Your task to perform on an android device: Show me recent news Image 0: 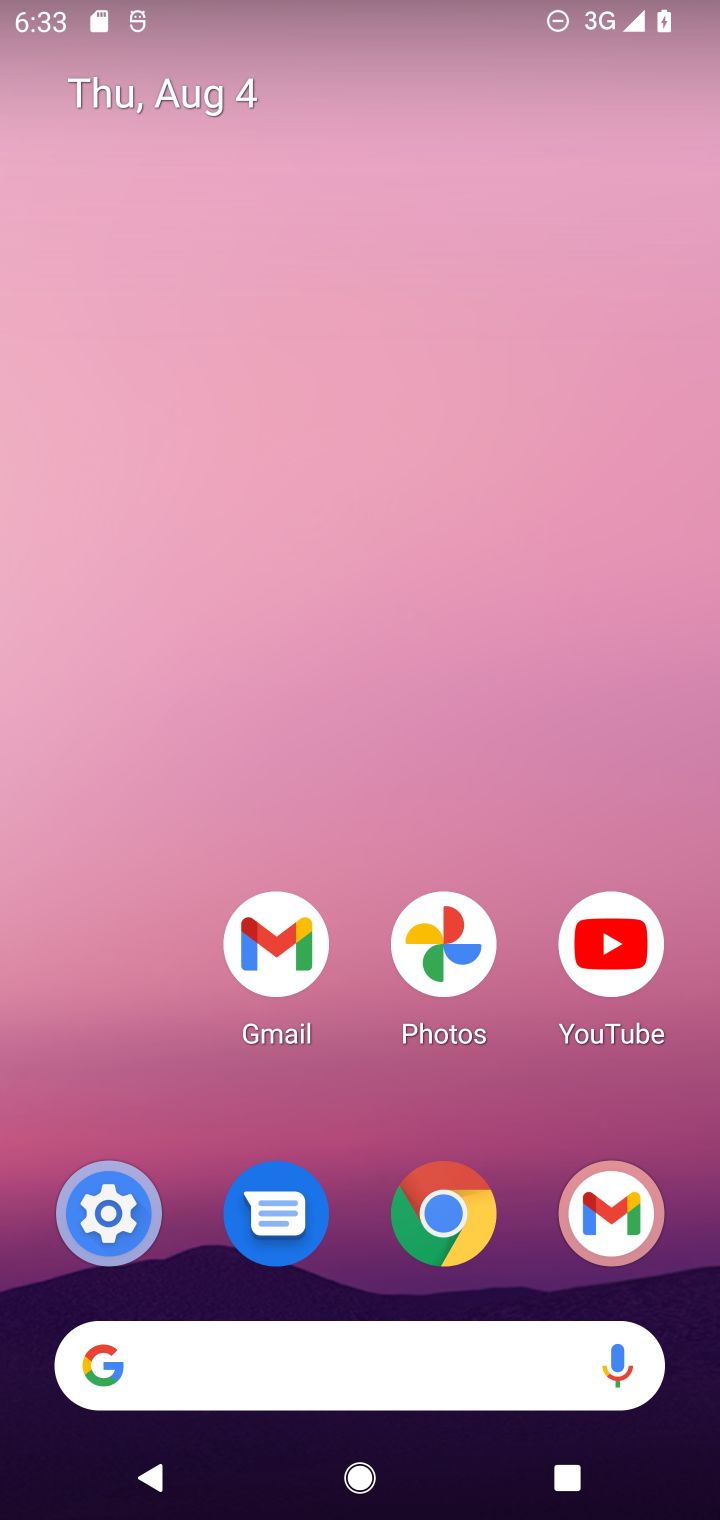
Step 0: drag from (37, 554) to (716, 729)
Your task to perform on an android device: Show me recent news Image 1: 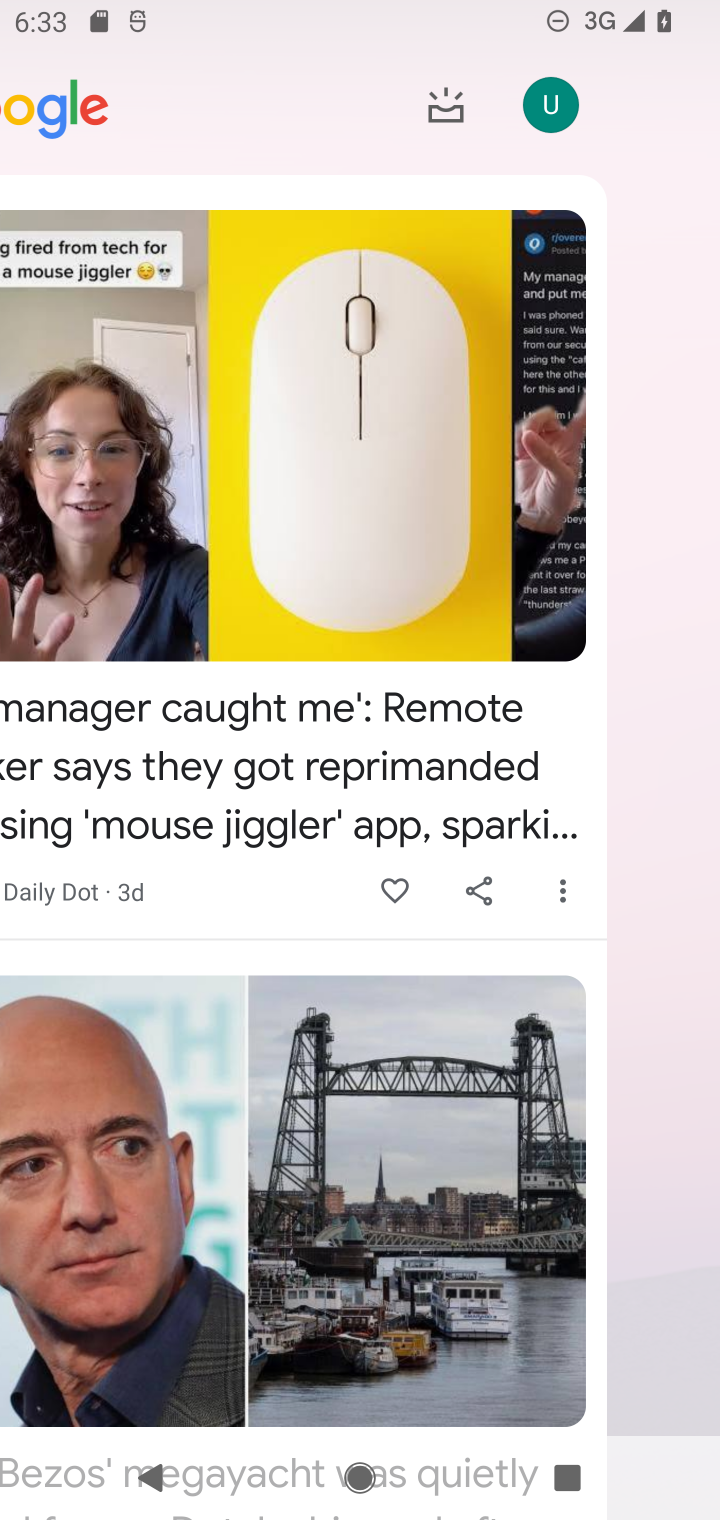
Step 1: task complete